Your task to perform on an android device: Go to display settings Image 0: 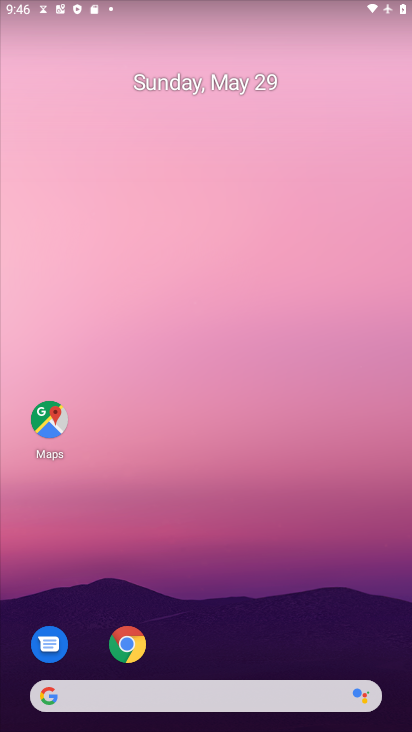
Step 0: drag from (288, 626) to (273, 166)
Your task to perform on an android device: Go to display settings Image 1: 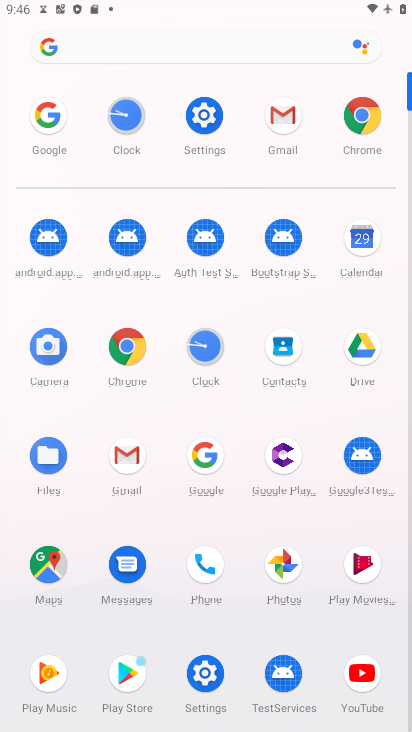
Step 1: click (204, 120)
Your task to perform on an android device: Go to display settings Image 2: 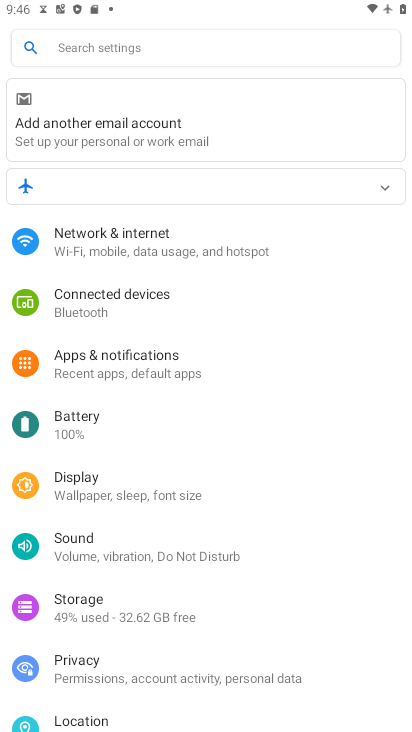
Step 2: drag from (158, 655) to (160, 453)
Your task to perform on an android device: Go to display settings Image 3: 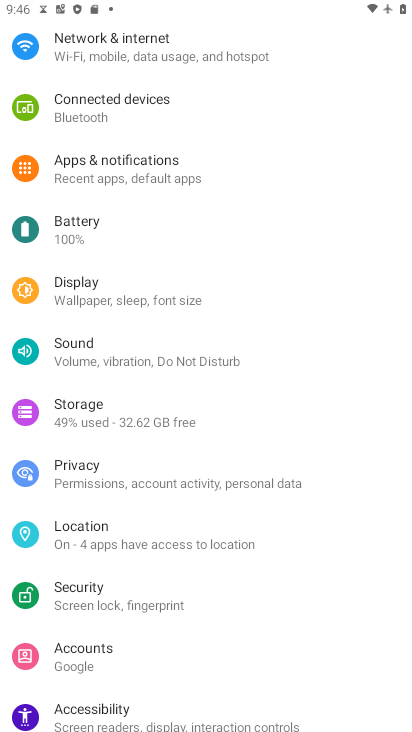
Step 3: click (125, 300)
Your task to perform on an android device: Go to display settings Image 4: 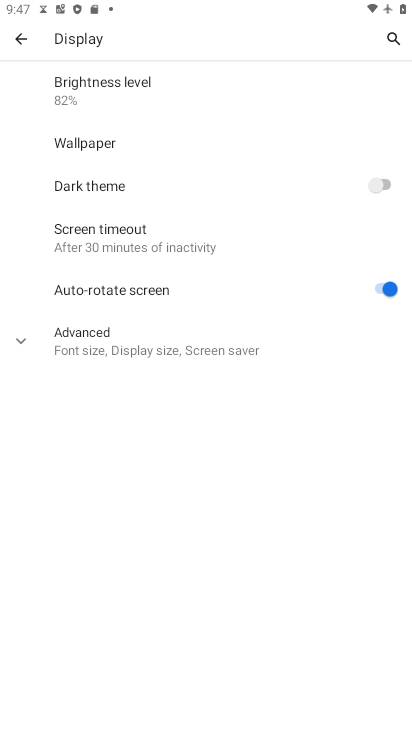
Step 4: task complete